Your task to perform on an android device: Search for sushi restaurants on Maps Image 0: 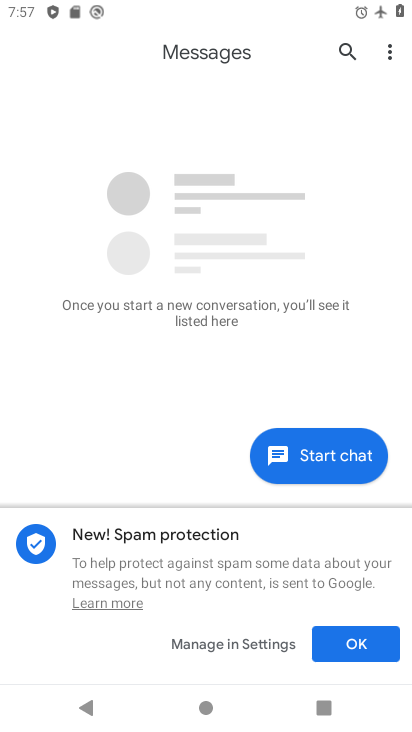
Step 0: press home button
Your task to perform on an android device: Search for sushi restaurants on Maps Image 1: 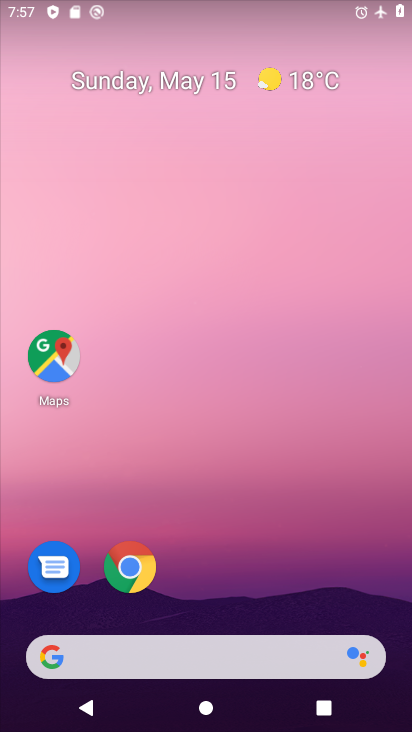
Step 1: click (42, 360)
Your task to perform on an android device: Search for sushi restaurants on Maps Image 2: 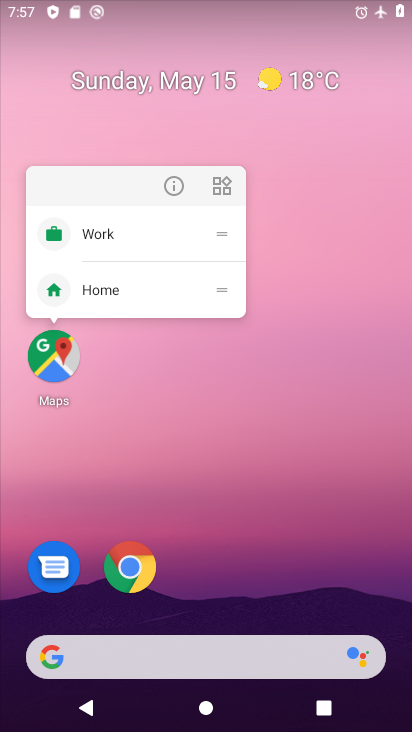
Step 2: click (42, 360)
Your task to perform on an android device: Search for sushi restaurants on Maps Image 3: 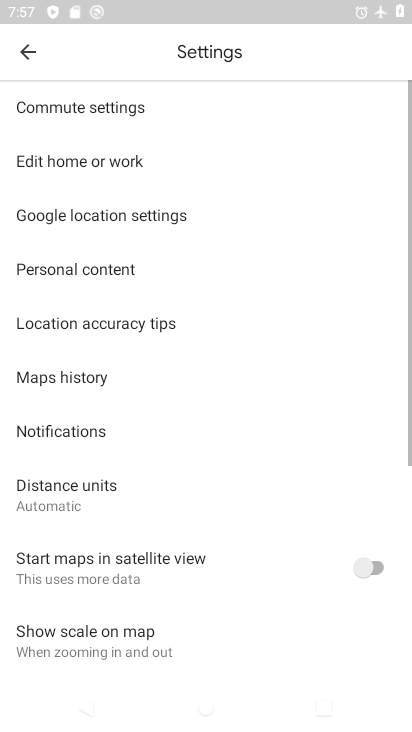
Step 3: click (27, 56)
Your task to perform on an android device: Search for sushi restaurants on Maps Image 4: 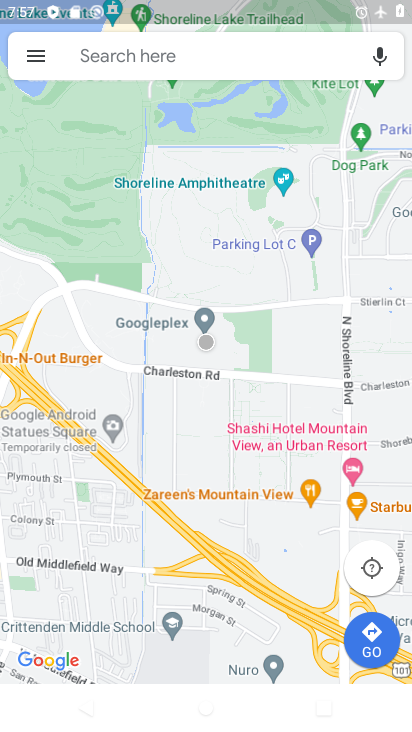
Step 4: click (183, 49)
Your task to perform on an android device: Search for sushi restaurants on Maps Image 5: 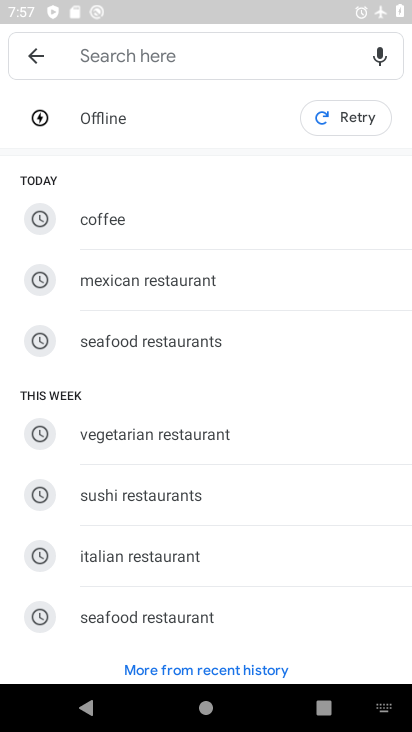
Step 5: click (205, 498)
Your task to perform on an android device: Search for sushi restaurants on Maps Image 6: 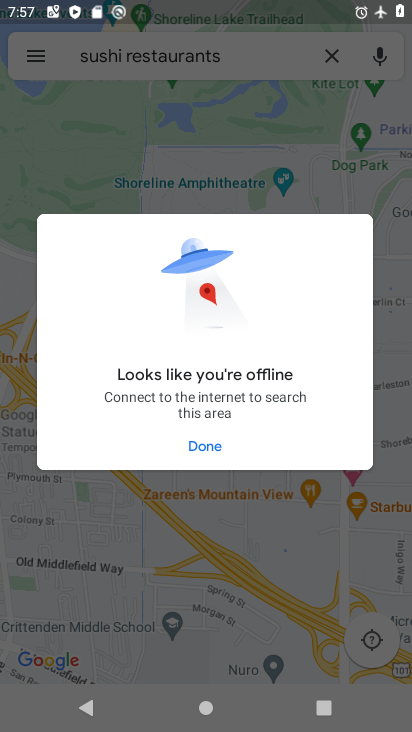
Step 6: click (207, 460)
Your task to perform on an android device: Search for sushi restaurants on Maps Image 7: 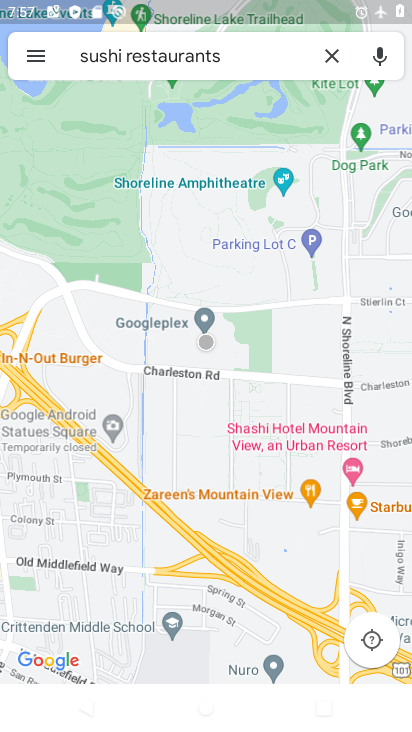
Step 7: task complete